Your task to perform on an android device: Set the phone to "Do not disturb". Image 0: 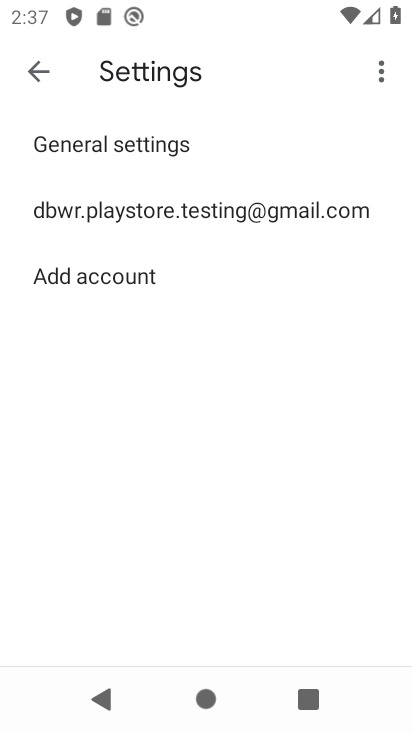
Step 0: press home button
Your task to perform on an android device: Set the phone to "Do not disturb". Image 1: 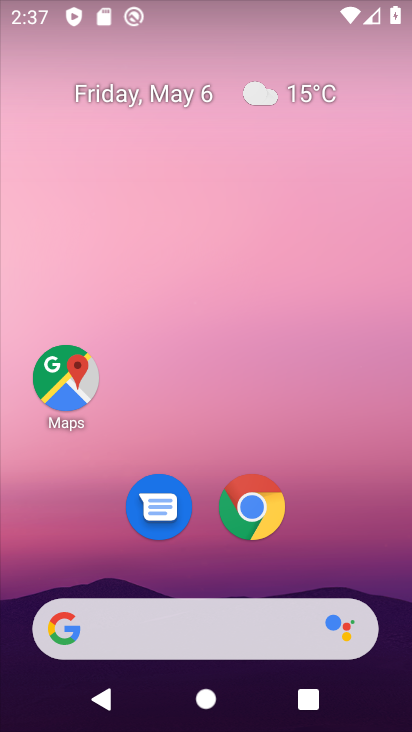
Step 1: drag from (350, 529) to (323, 140)
Your task to perform on an android device: Set the phone to "Do not disturb". Image 2: 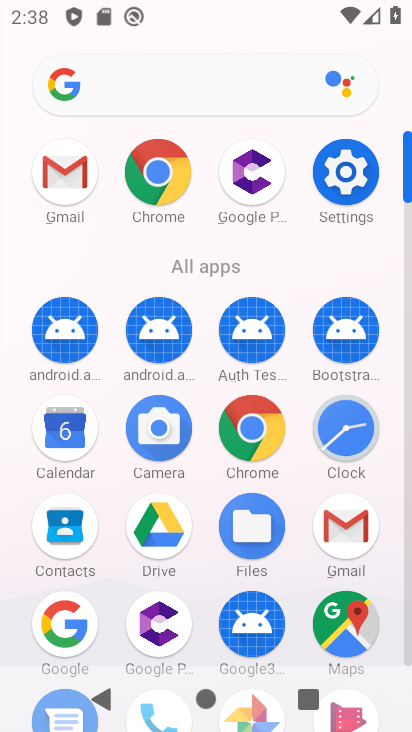
Step 2: press home button
Your task to perform on an android device: Set the phone to "Do not disturb". Image 3: 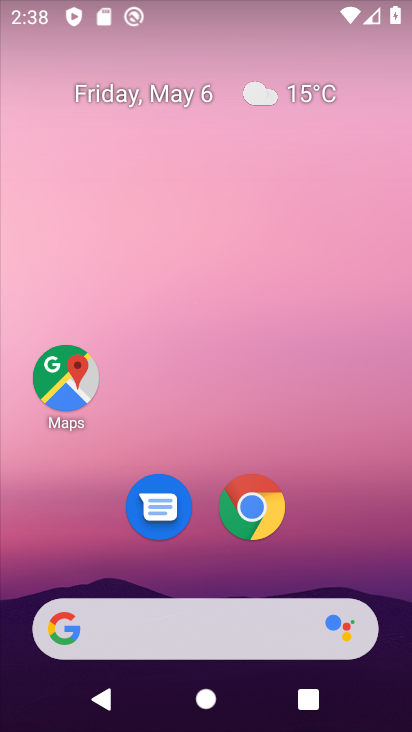
Step 3: drag from (349, 535) to (308, 95)
Your task to perform on an android device: Set the phone to "Do not disturb". Image 4: 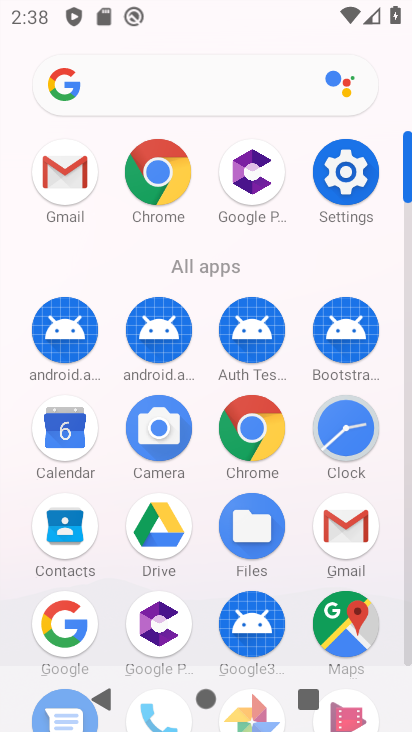
Step 4: click (339, 148)
Your task to perform on an android device: Set the phone to "Do not disturb". Image 5: 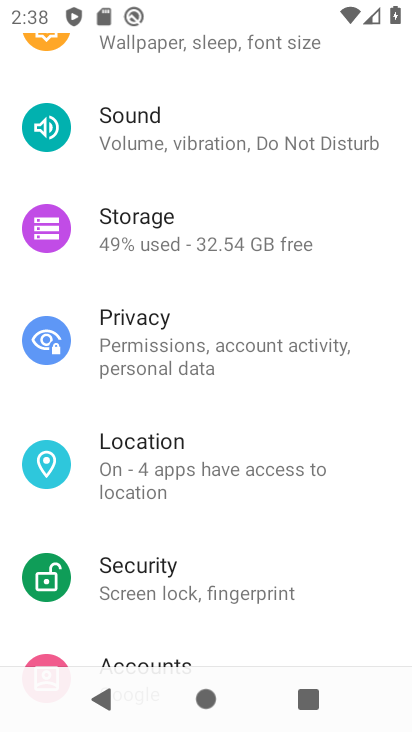
Step 5: drag from (190, 154) to (229, 435)
Your task to perform on an android device: Set the phone to "Do not disturb". Image 6: 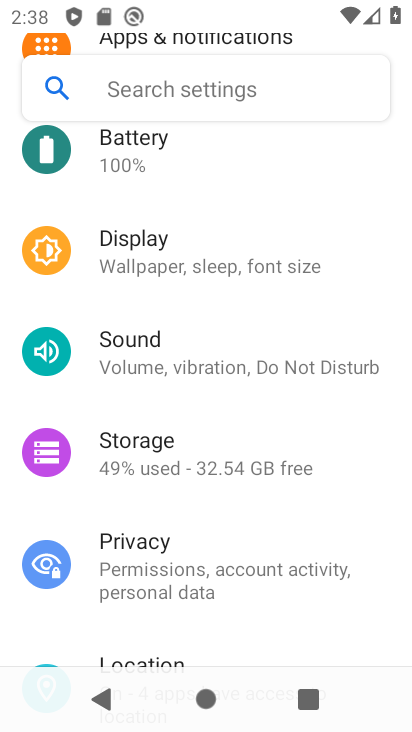
Step 6: drag from (153, 209) to (188, 502)
Your task to perform on an android device: Set the phone to "Do not disturb". Image 7: 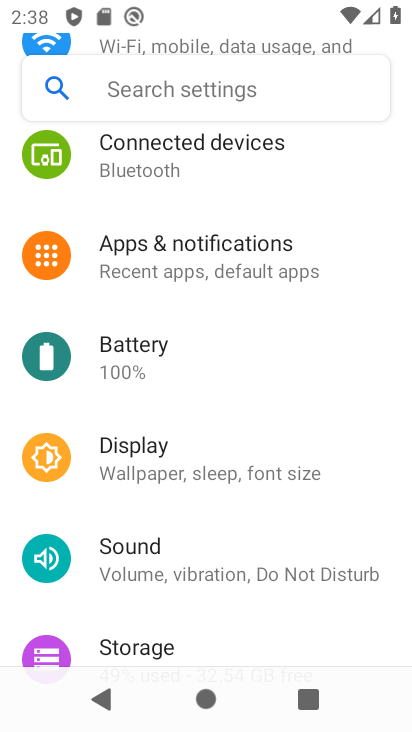
Step 7: click (157, 546)
Your task to perform on an android device: Set the phone to "Do not disturb". Image 8: 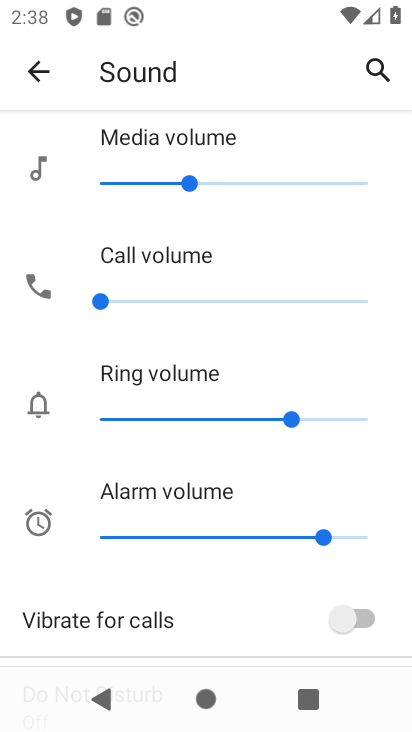
Step 8: drag from (144, 545) to (173, 264)
Your task to perform on an android device: Set the phone to "Do not disturb". Image 9: 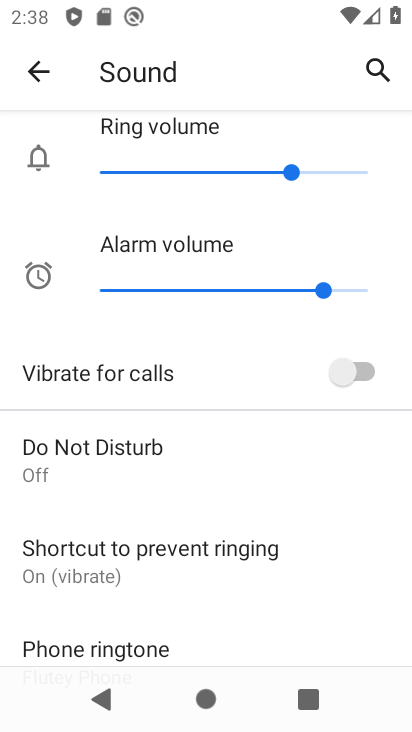
Step 9: click (74, 483)
Your task to perform on an android device: Set the phone to "Do not disturb". Image 10: 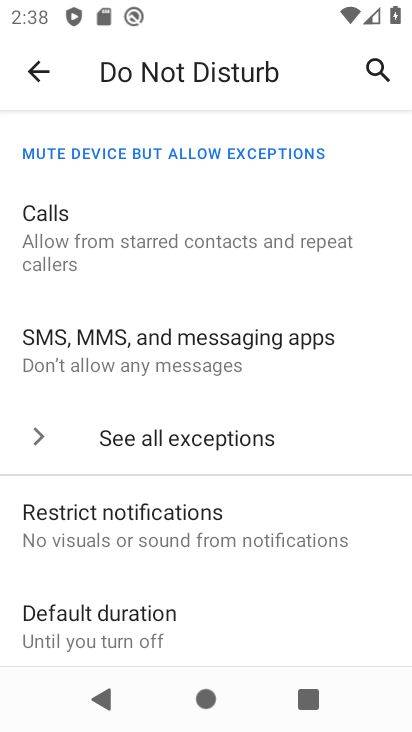
Step 10: drag from (149, 551) to (195, 248)
Your task to perform on an android device: Set the phone to "Do not disturb". Image 11: 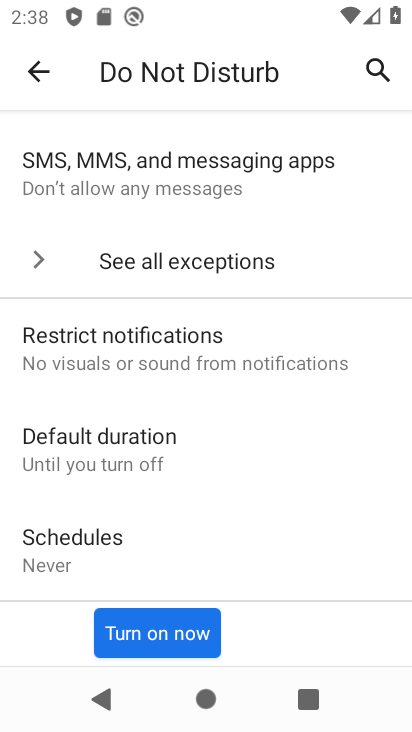
Step 11: click (164, 624)
Your task to perform on an android device: Set the phone to "Do not disturb". Image 12: 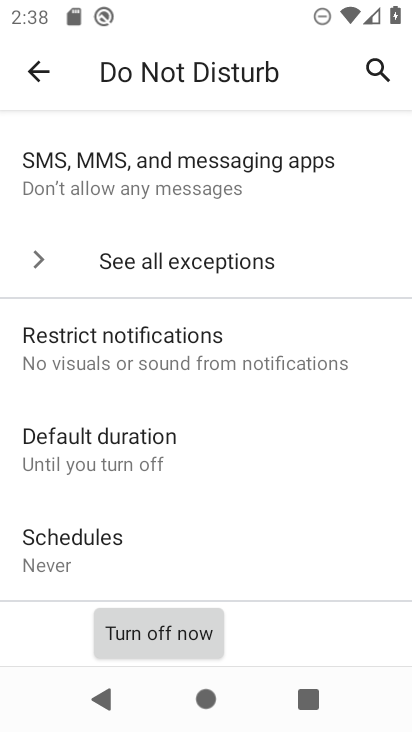
Step 12: task complete